Your task to perform on an android device: open chrome privacy settings Image 0: 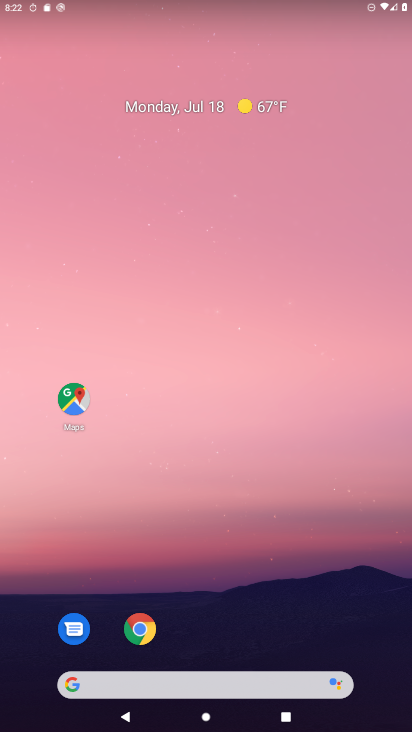
Step 0: drag from (201, 658) to (138, 118)
Your task to perform on an android device: open chrome privacy settings Image 1: 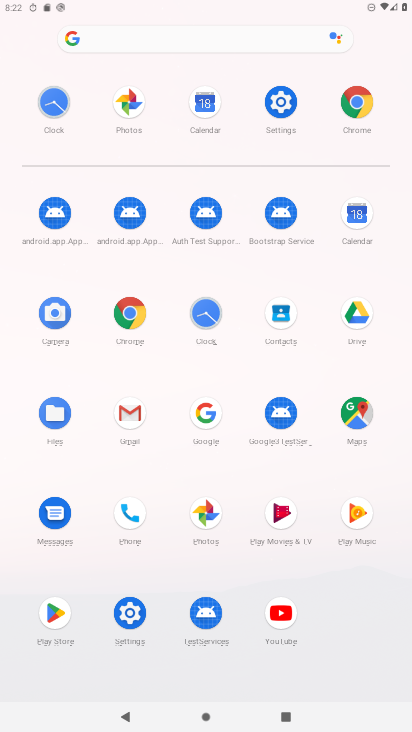
Step 1: click (134, 309)
Your task to perform on an android device: open chrome privacy settings Image 2: 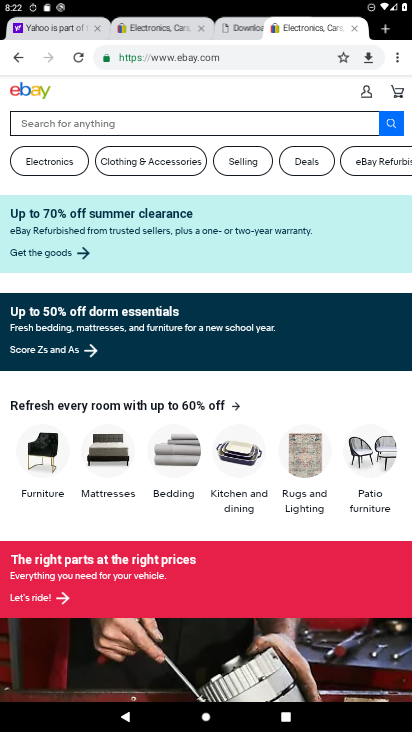
Step 2: drag from (393, 56) to (289, 377)
Your task to perform on an android device: open chrome privacy settings Image 3: 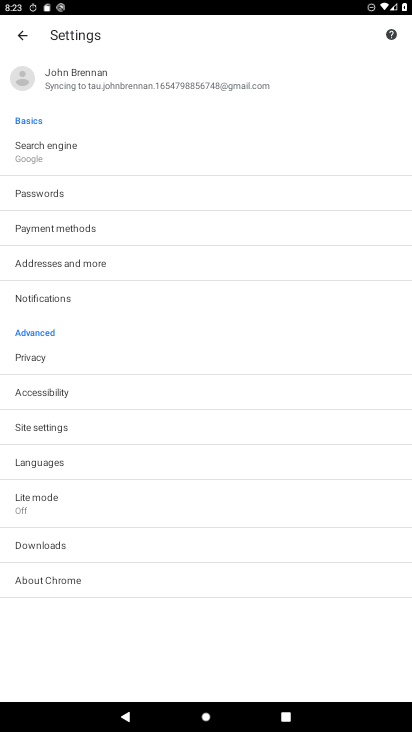
Step 3: click (27, 354)
Your task to perform on an android device: open chrome privacy settings Image 4: 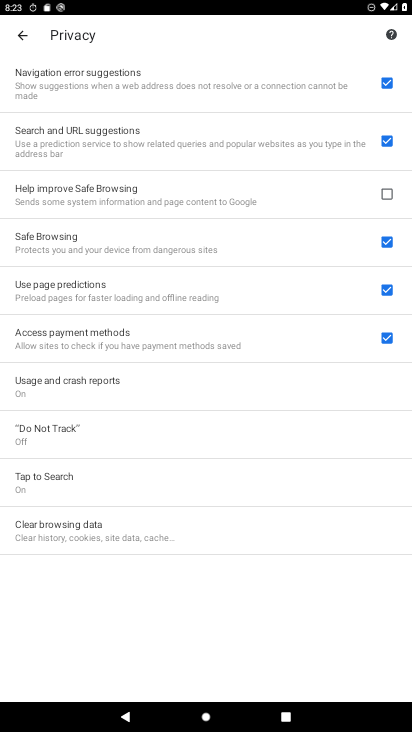
Step 4: task complete